Your task to perform on an android device: Open Google Image 0: 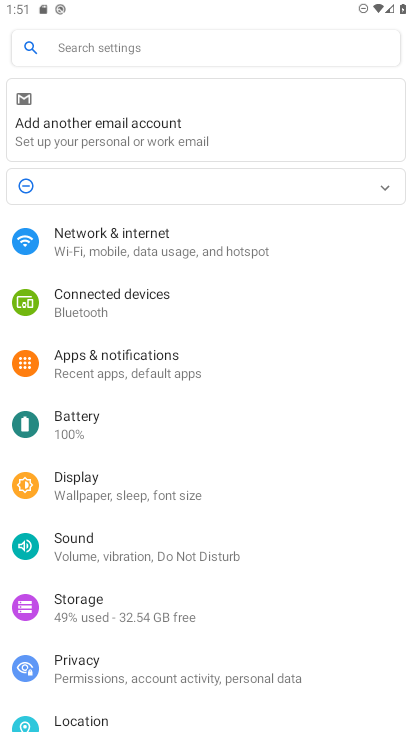
Step 0: press home button
Your task to perform on an android device: Open Google Image 1: 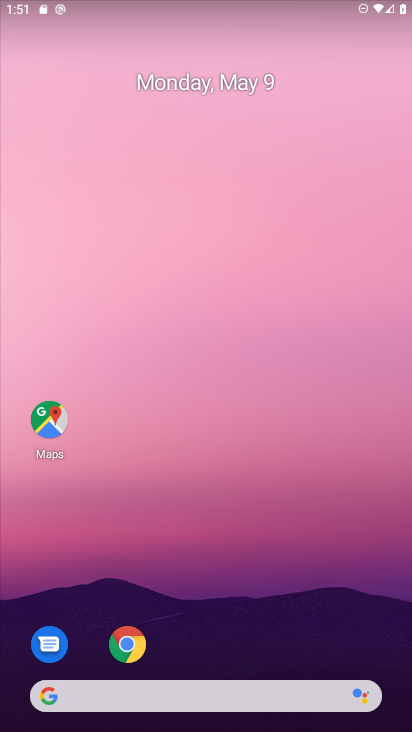
Step 1: drag from (184, 586) to (190, 148)
Your task to perform on an android device: Open Google Image 2: 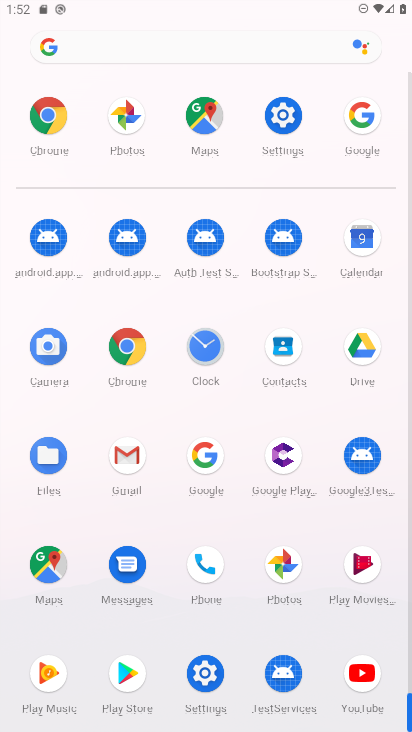
Step 2: click (208, 471)
Your task to perform on an android device: Open Google Image 3: 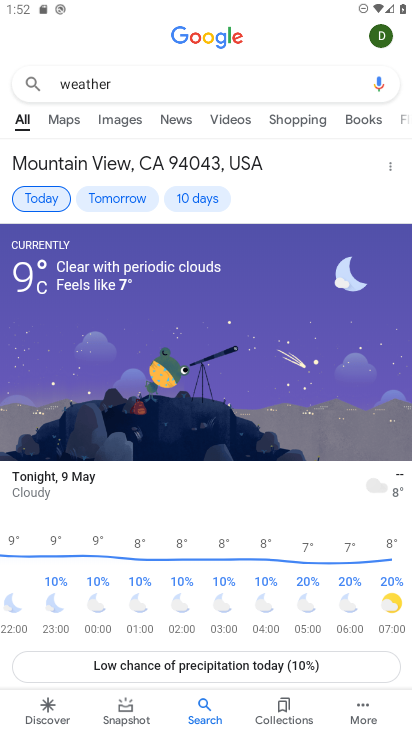
Step 3: task complete